Your task to perform on an android device: Show the shopping cart on costco.com. Add "amazon basics triple a" to the cart on costco.com, then select checkout. Image 0: 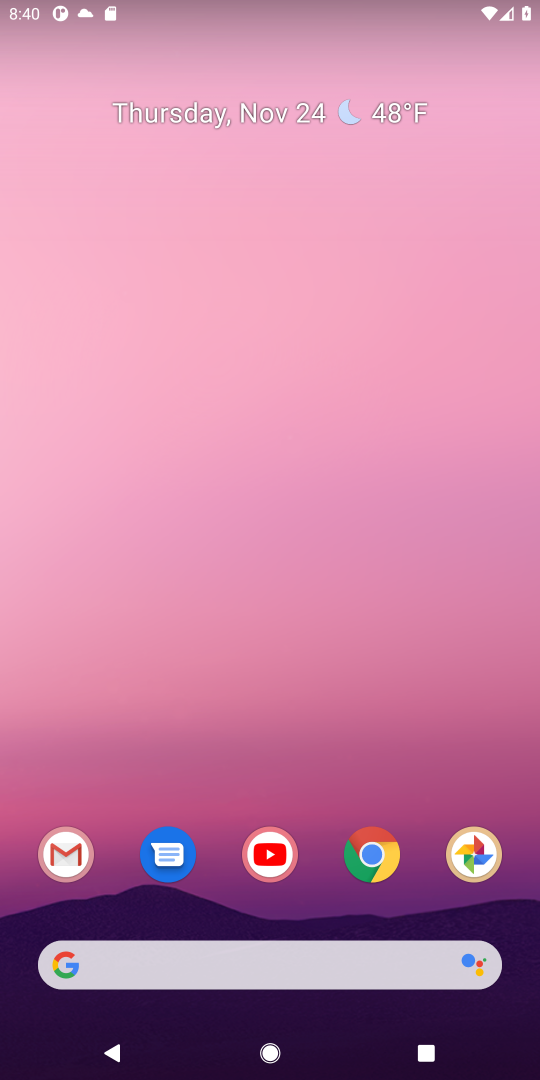
Step 0: click (380, 856)
Your task to perform on an android device: Show the shopping cart on costco.com. Add "amazon basics triple a" to the cart on costco.com, then select checkout. Image 1: 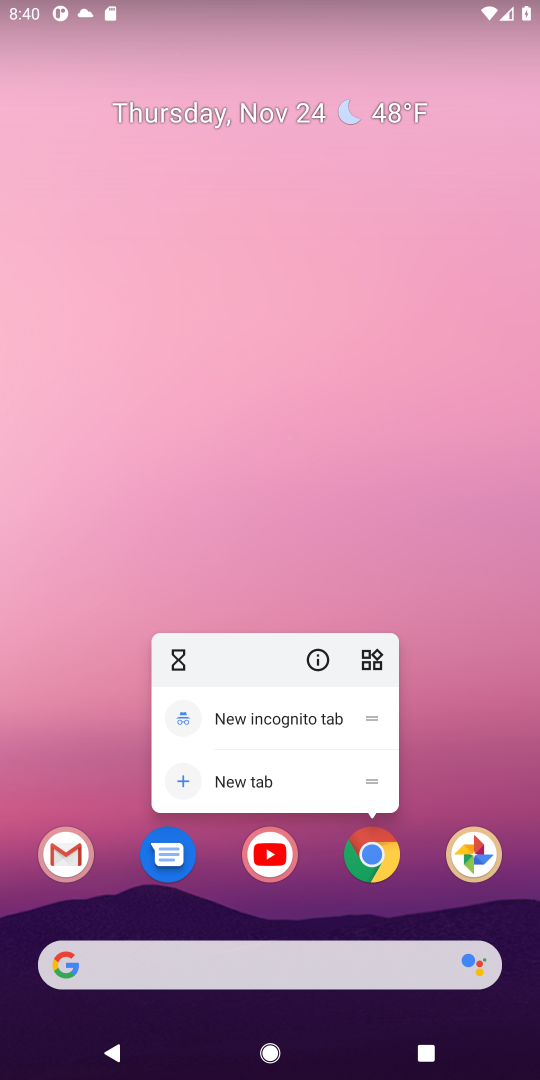
Step 1: click (376, 860)
Your task to perform on an android device: Show the shopping cart on costco.com. Add "amazon basics triple a" to the cart on costco.com, then select checkout. Image 2: 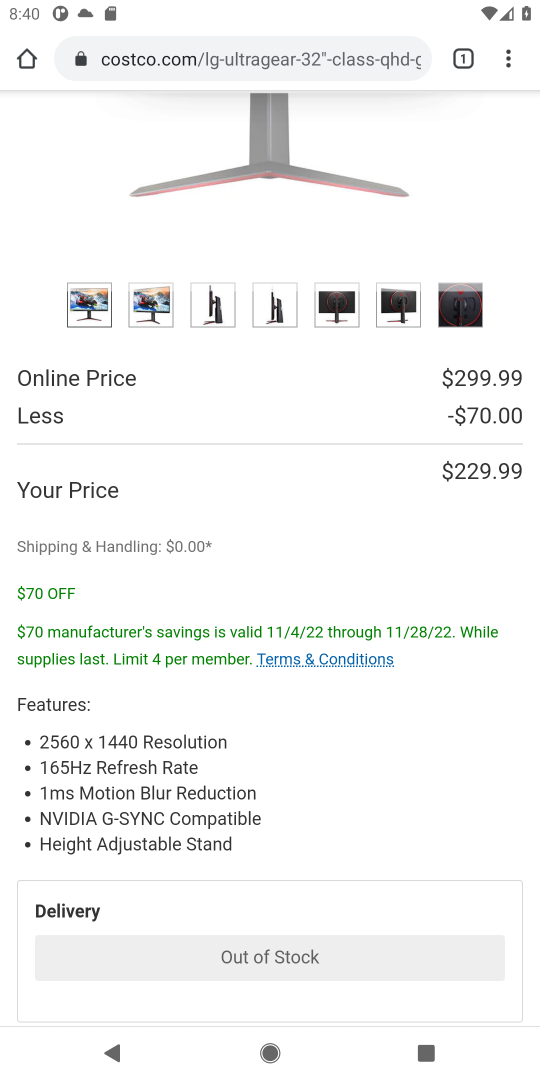
Step 2: drag from (223, 250) to (294, 781)
Your task to perform on an android device: Show the shopping cart on costco.com. Add "amazon basics triple a" to the cart on costco.com, then select checkout. Image 3: 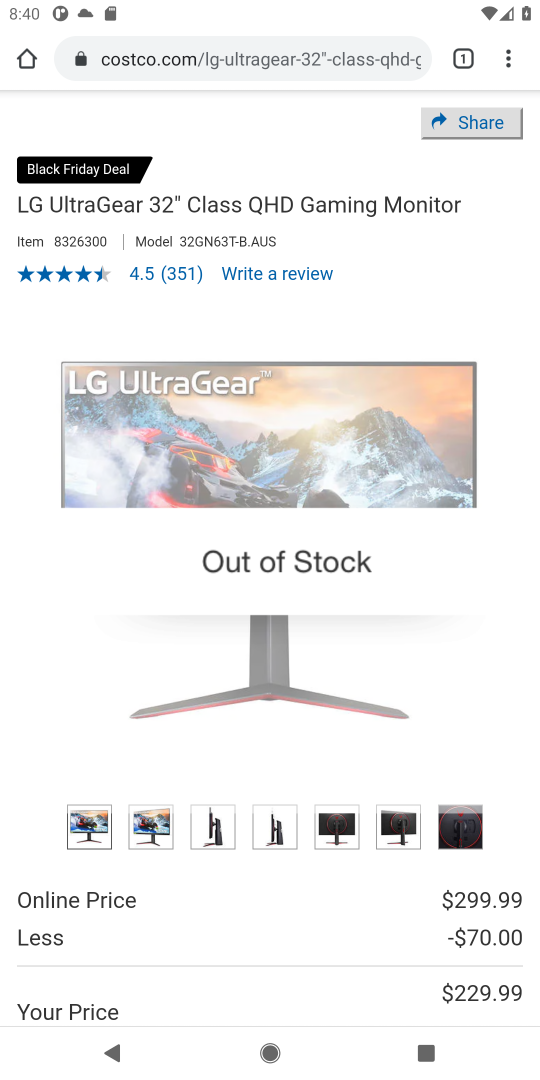
Step 3: drag from (263, 270) to (234, 669)
Your task to perform on an android device: Show the shopping cart on costco.com. Add "amazon basics triple a" to the cart on costco.com, then select checkout. Image 4: 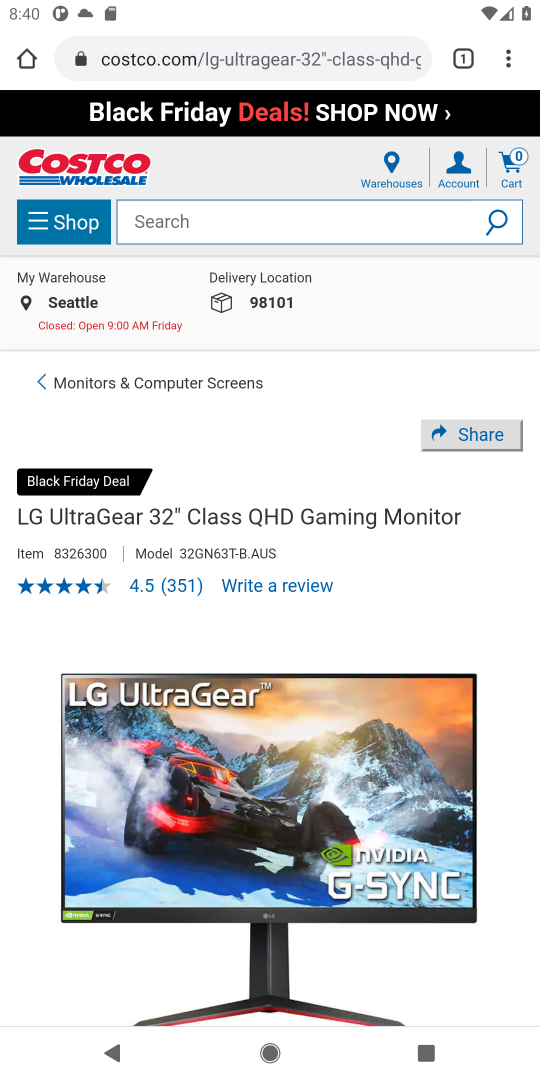
Step 4: click (507, 171)
Your task to perform on an android device: Show the shopping cart on costco.com. Add "amazon basics triple a" to the cart on costco.com, then select checkout. Image 5: 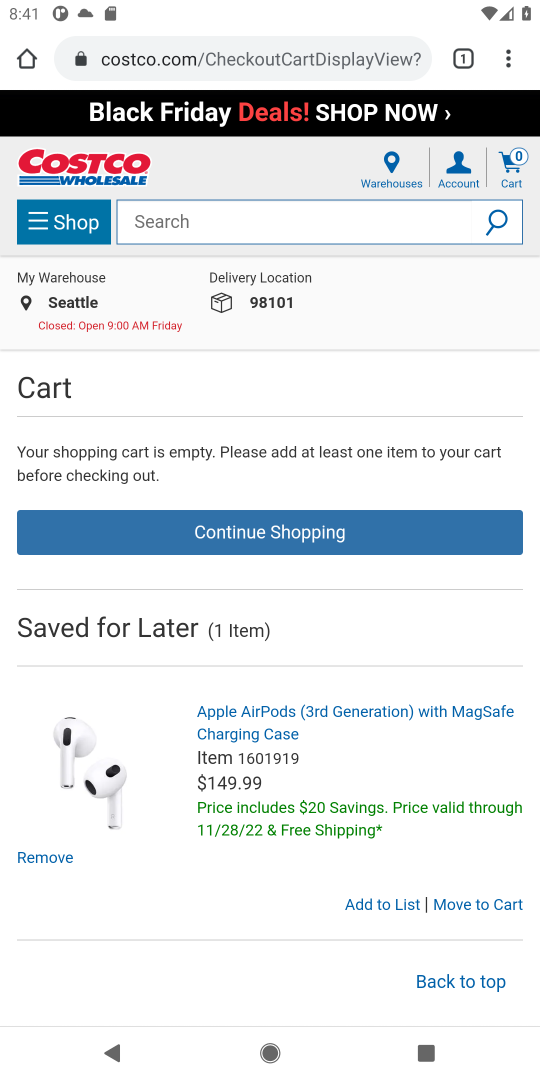
Step 5: click (220, 225)
Your task to perform on an android device: Show the shopping cart on costco.com. Add "amazon basics triple a" to the cart on costco.com, then select checkout. Image 6: 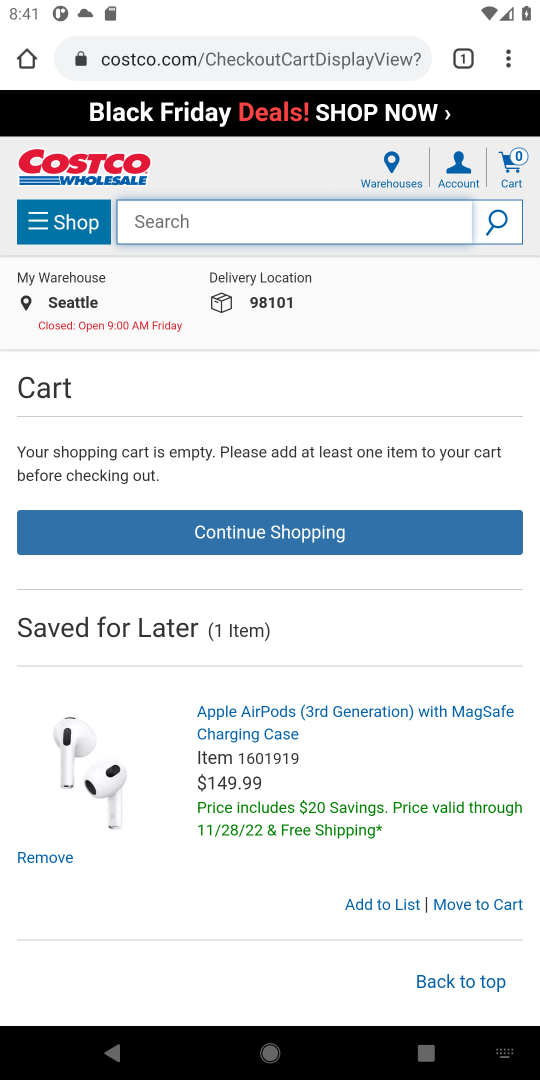
Step 6: type "amazon basics triple a"
Your task to perform on an android device: Show the shopping cart on costco.com. Add "amazon basics triple a" to the cart on costco.com, then select checkout. Image 7: 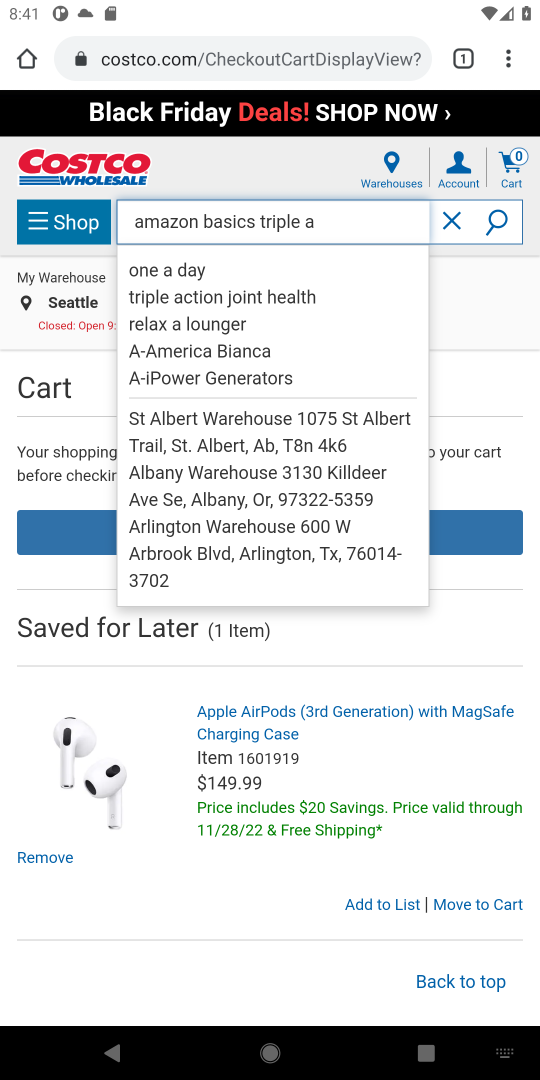
Step 7: click (491, 220)
Your task to perform on an android device: Show the shopping cart on costco.com. Add "amazon basics triple a" to the cart on costco.com, then select checkout. Image 8: 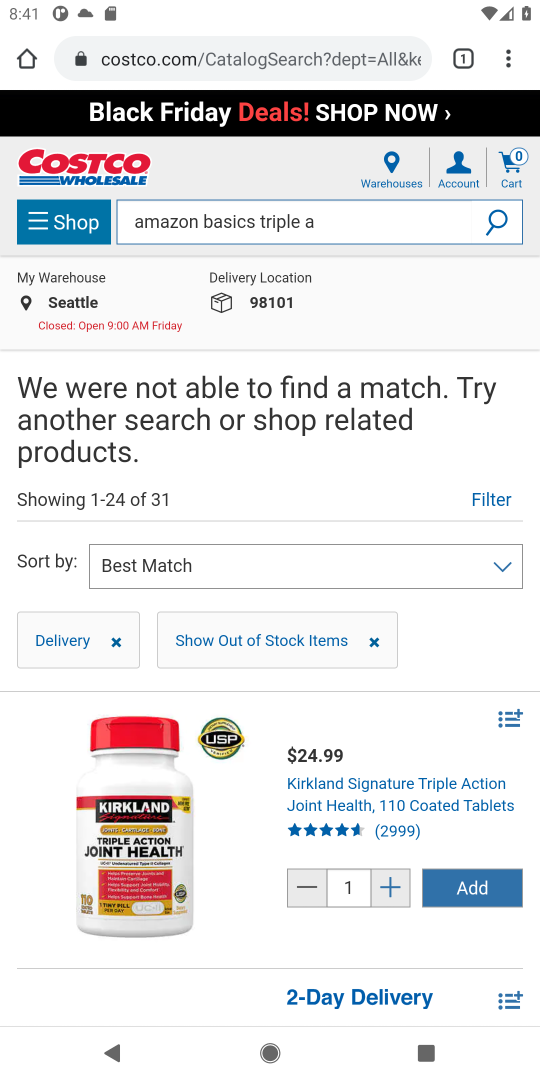
Step 8: task complete